Your task to perform on an android device: Go to location settings Image 0: 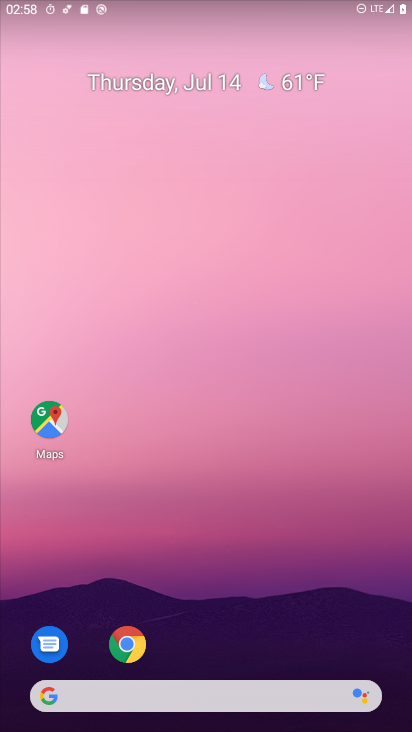
Step 0: drag from (236, 628) to (180, 19)
Your task to perform on an android device: Go to location settings Image 1: 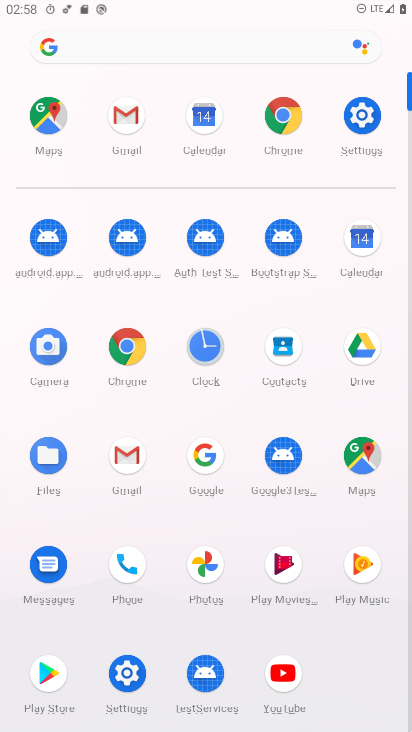
Step 1: click (367, 117)
Your task to perform on an android device: Go to location settings Image 2: 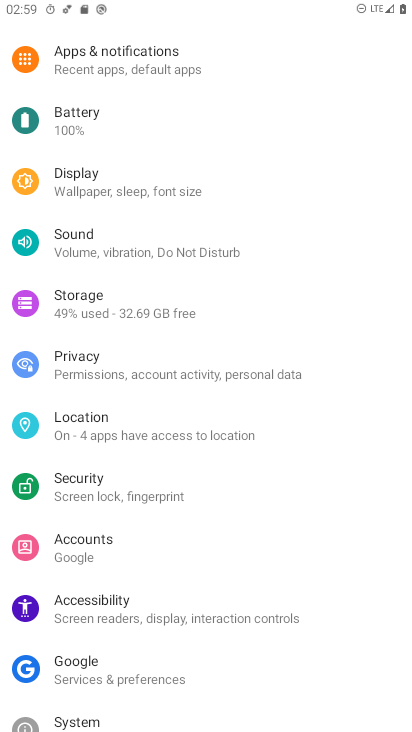
Step 2: click (89, 425)
Your task to perform on an android device: Go to location settings Image 3: 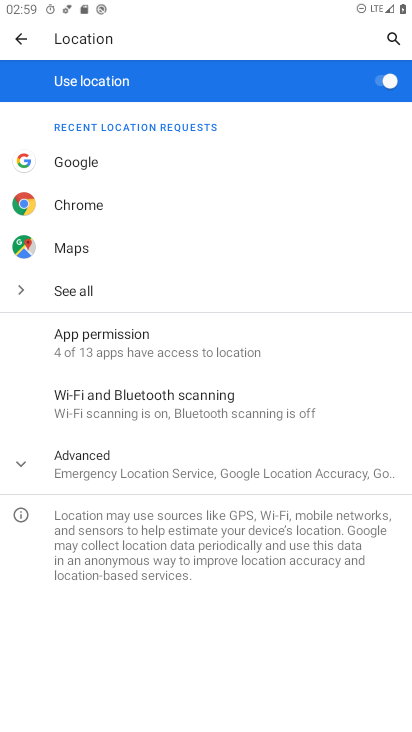
Step 3: task complete